Your task to perform on an android device: Go to accessibility settings Image 0: 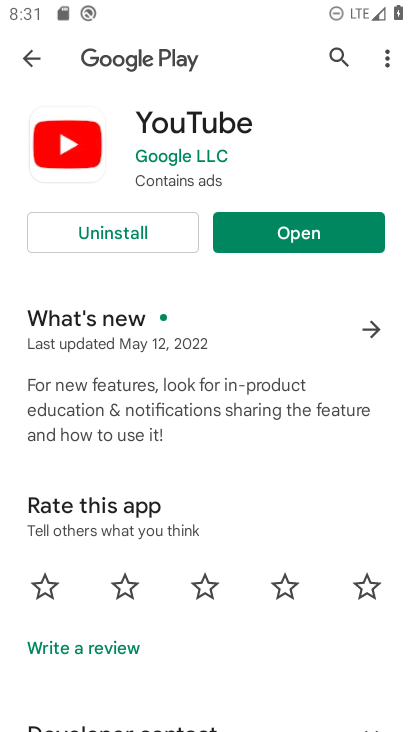
Step 0: press home button
Your task to perform on an android device: Go to accessibility settings Image 1: 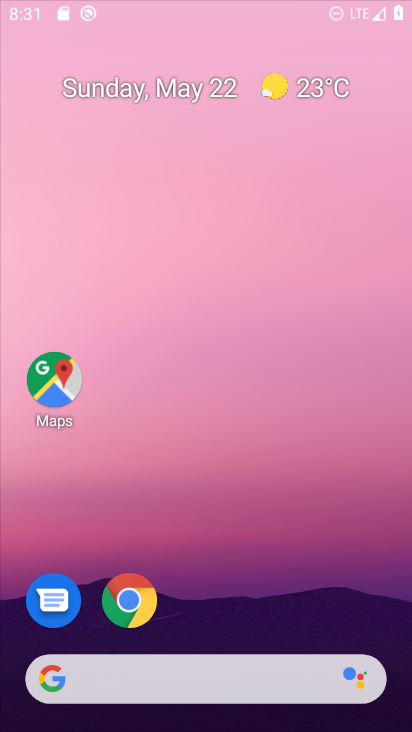
Step 1: drag from (362, 606) to (236, 63)
Your task to perform on an android device: Go to accessibility settings Image 2: 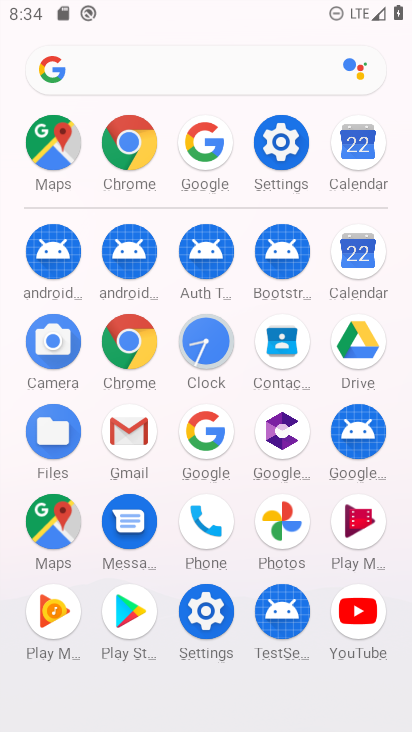
Step 2: click (210, 628)
Your task to perform on an android device: Go to accessibility settings Image 3: 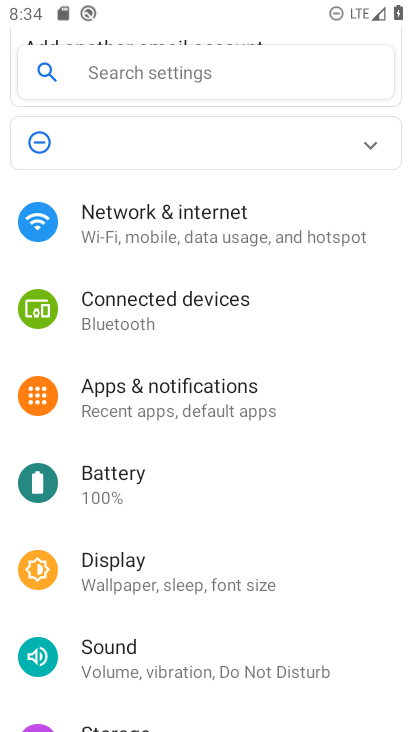
Step 3: drag from (177, 633) to (181, 160)
Your task to perform on an android device: Go to accessibility settings Image 4: 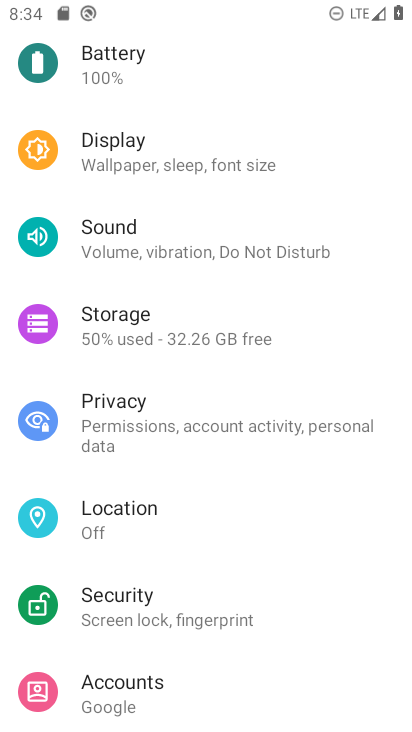
Step 4: drag from (195, 674) to (241, 142)
Your task to perform on an android device: Go to accessibility settings Image 5: 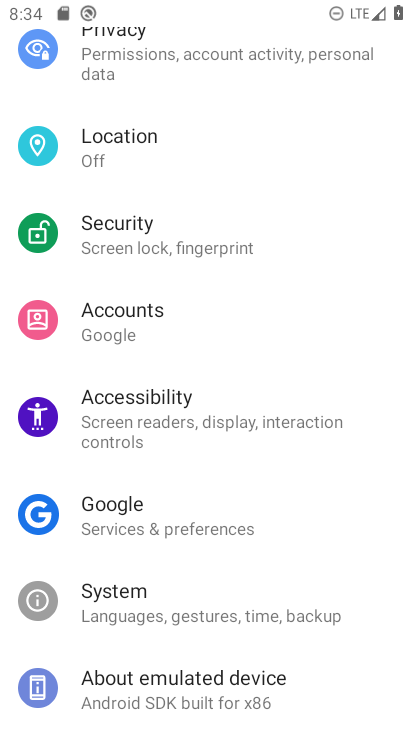
Step 5: click (196, 430)
Your task to perform on an android device: Go to accessibility settings Image 6: 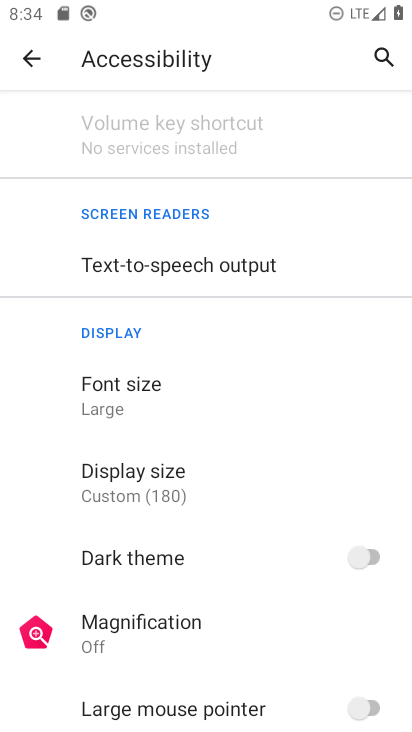
Step 6: task complete